Your task to perform on an android device: open a bookmark in the chrome app Image 0: 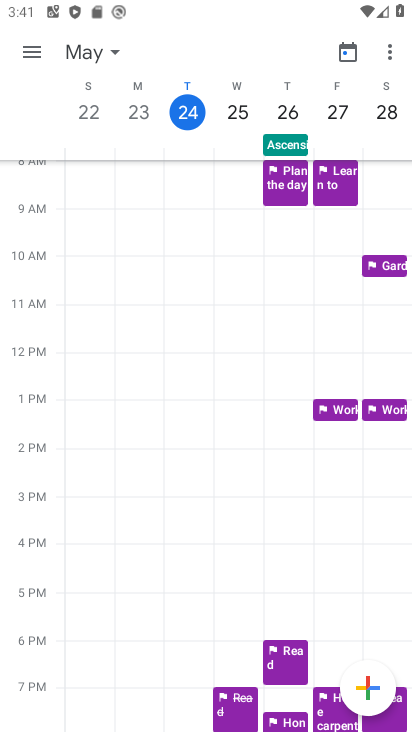
Step 0: press home button
Your task to perform on an android device: open a bookmark in the chrome app Image 1: 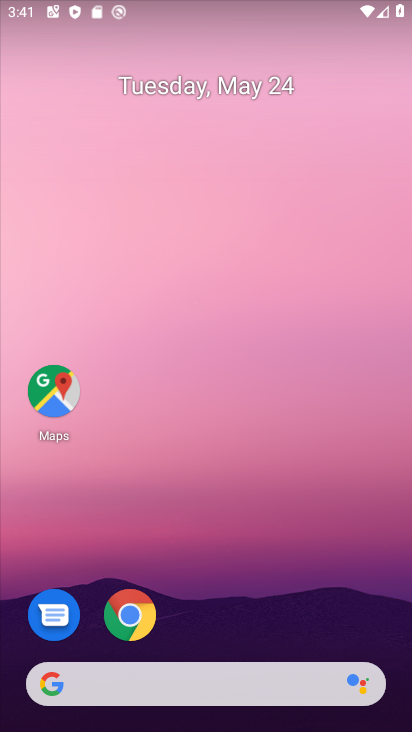
Step 1: click (125, 623)
Your task to perform on an android device: open a bookmark in the chrome app Image 2: 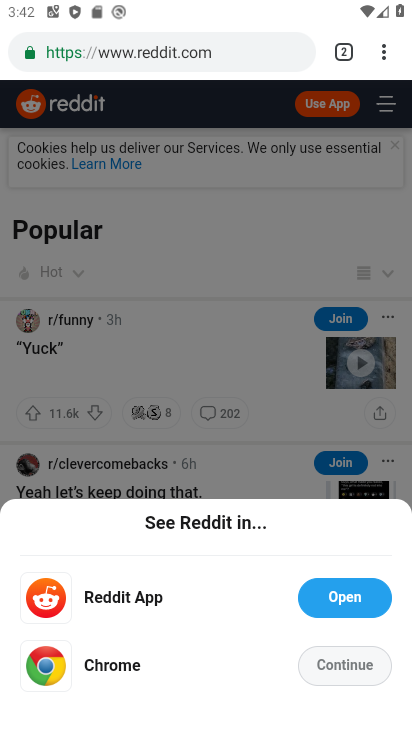
Step 2: click (385, 59)
Your task to perform on an android device: open a bookmark in the chrome app Image 3: 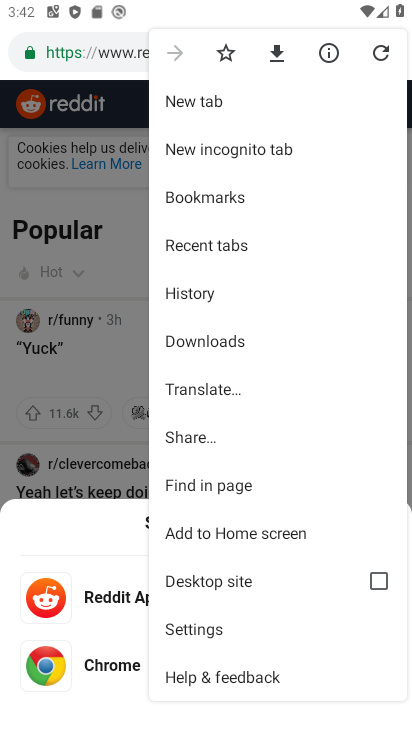
Step 3: click (205, 197)
Your task to perform on an android device: open a bookmark in the chrome app Image 4: 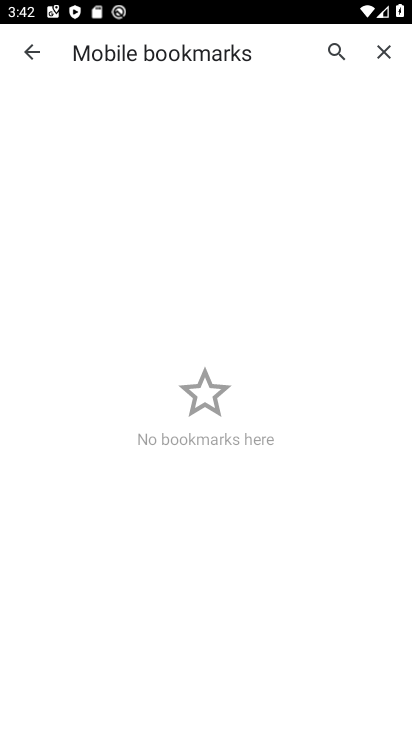
Step 4: task complete